Your task to perform on an android device: turn off location history Image 0: 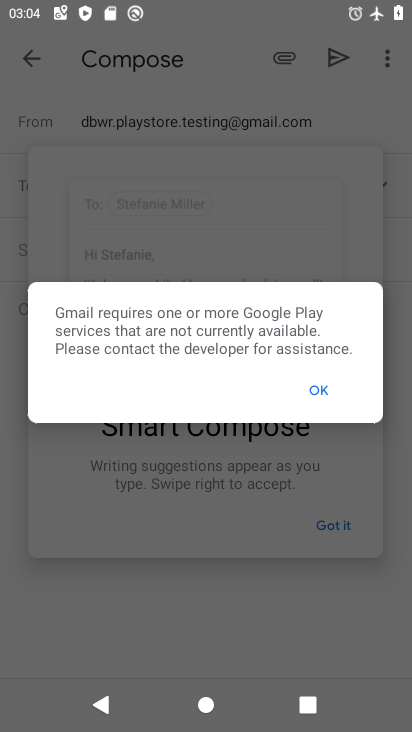
Step 0: press home button
Your task to perform on an android device: turn off location history Image 1: 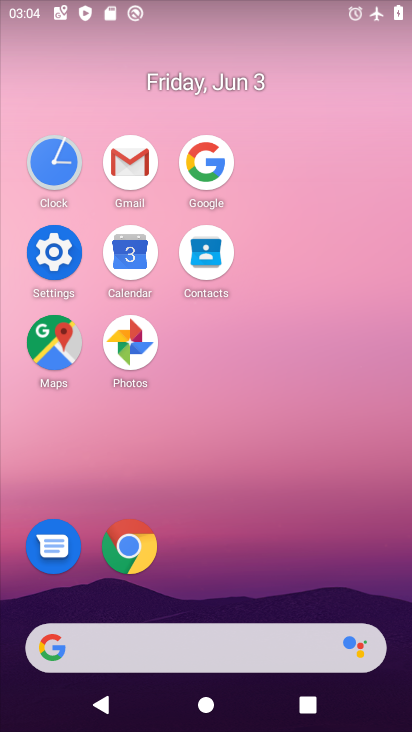
Step 1: click (51, 247)
Your task to perform on an android device: turn off location history Image 2: 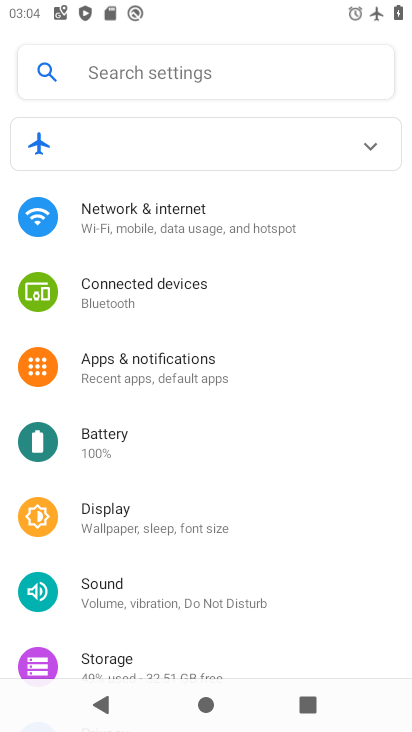
Step 2: drag from (236, 560) to (210, 254)
Your task to perform on an android device: turn off location history Image 3: 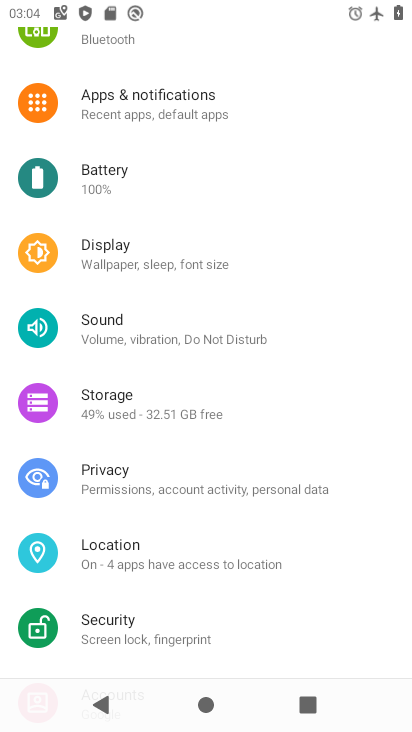
Step 3: click (180, 564)
Your task to perform on an android device: turn off location history Image 4: 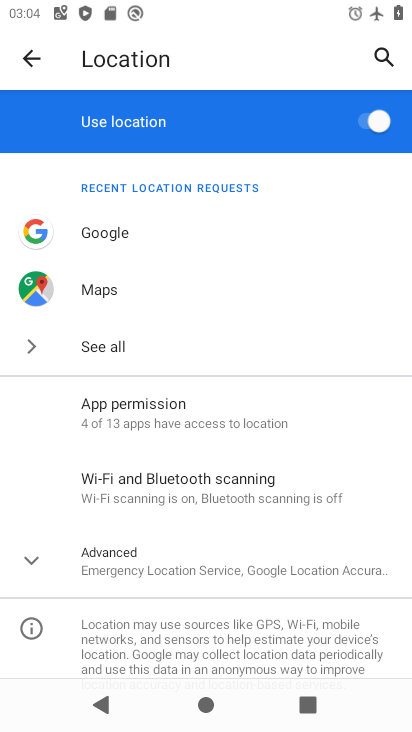
Step 4: click (193, 560)
Your task to perform on an android device: turn off location history Image 5: 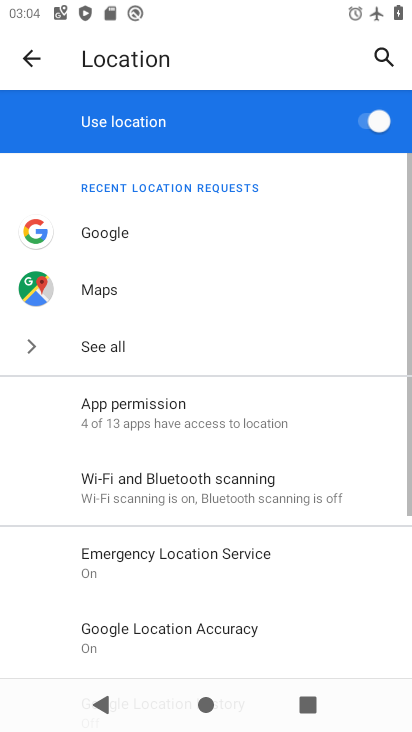
Step 5: drag from (214, 468) to (278, 170)
Your task to perform on an android device: turn off location history Image 6: 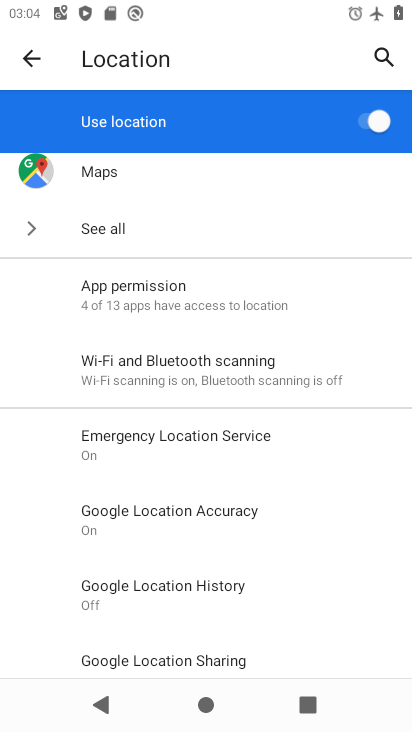
Step 6: click (264, 594)
Your task to perform on an android device: turn off location history Image 7: 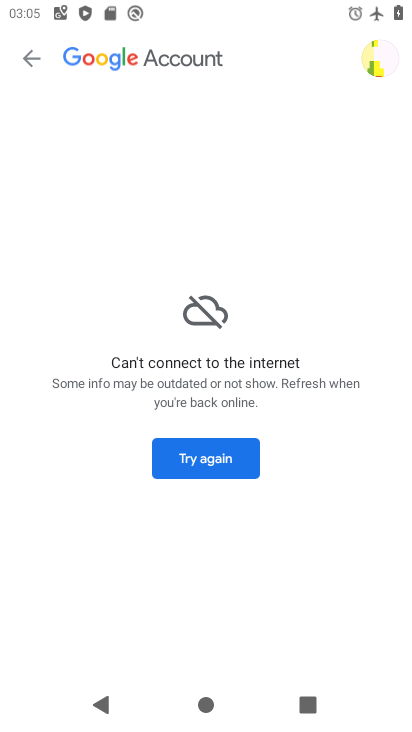
Step 7: task complete